Your task to perform on an android device: set default search engine in the chrome app Image 0: 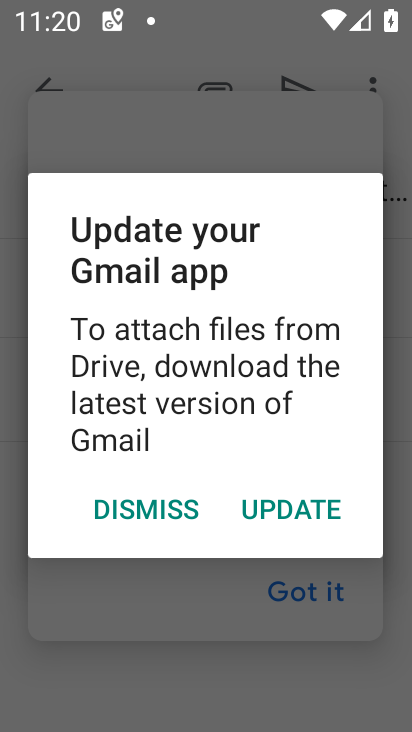
Step 0: press home button
Your task to perform on an android device: set default search engine in the chrome app Image 1: 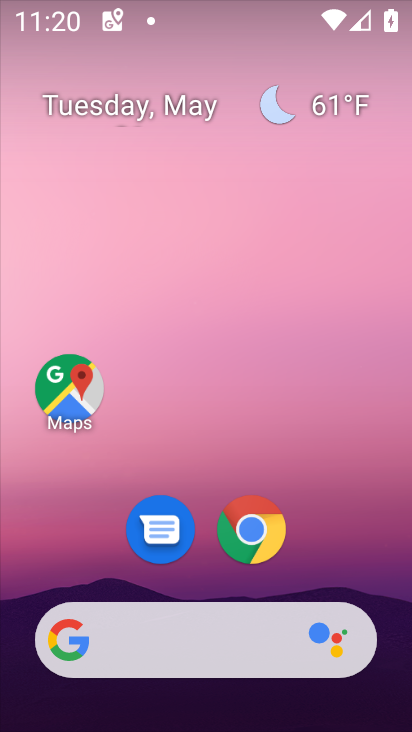
Step 1: click (265, 536)
Your task to perform on an android device: set default search engine in the chrome app Image 2: 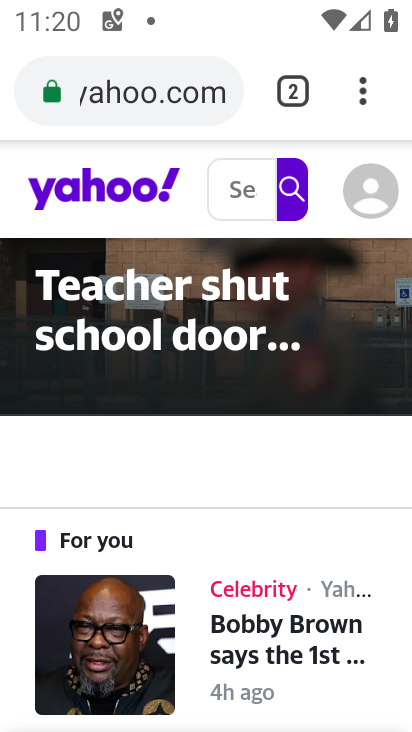
Step 2: click (365, 99)
Your task to perform on an android device: set default search engine in the chrome app Image 3: 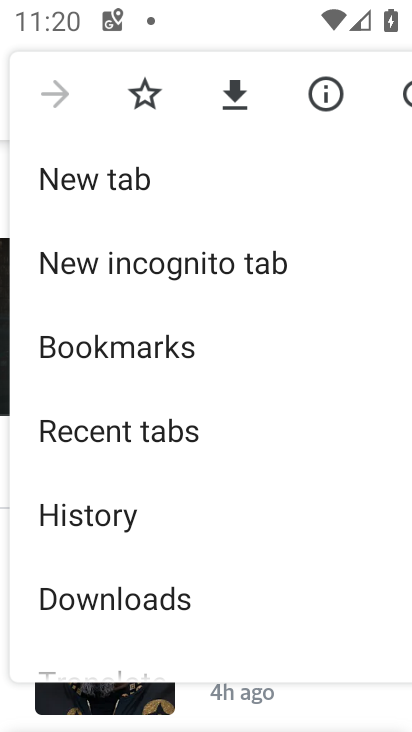
Step 3: drag from (121, 545) to (134, 205)
Your task to perform on an android device: set default search engine in the chrome app Image 4: 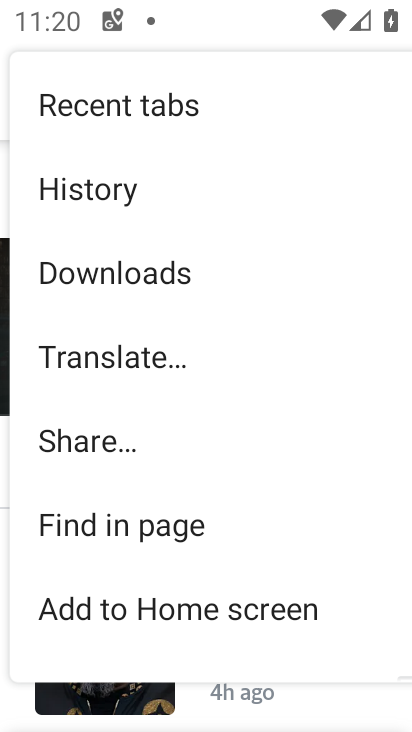
Step 4: drag from (171, 550) to (207, 224)
Your task to perform on an android device: set default search engine in the chrome app Image 5: 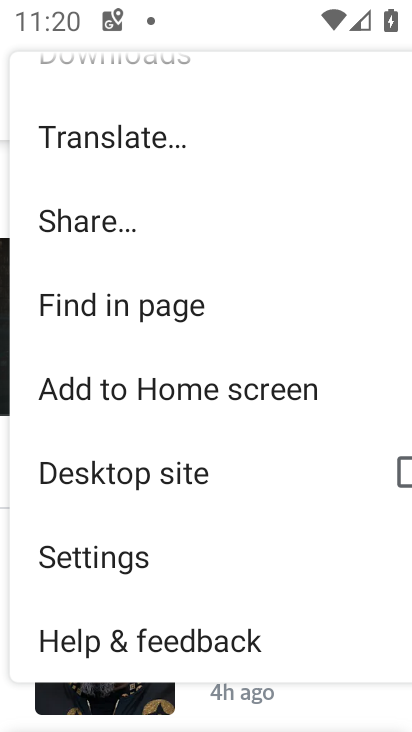
Step 5: click (89, 559)
Your task to perform on an android device: set default search engine in the chrome app Image 6: 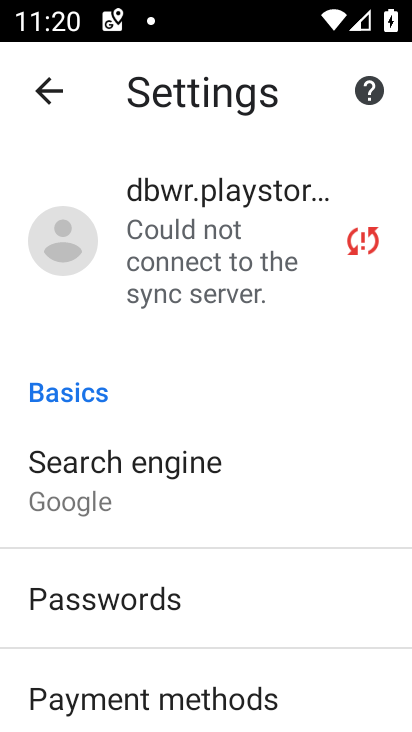
Step 6: click (116, 489)
Your task to perform on an android device: set default search engine in the chrome app Image 7: 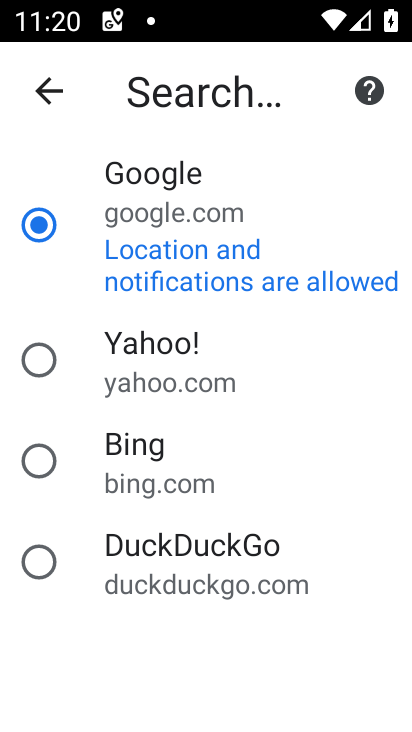
Step 7: click (122, 554)
Your task to perform on an android device: set default search engine in the chrome app Image 8: 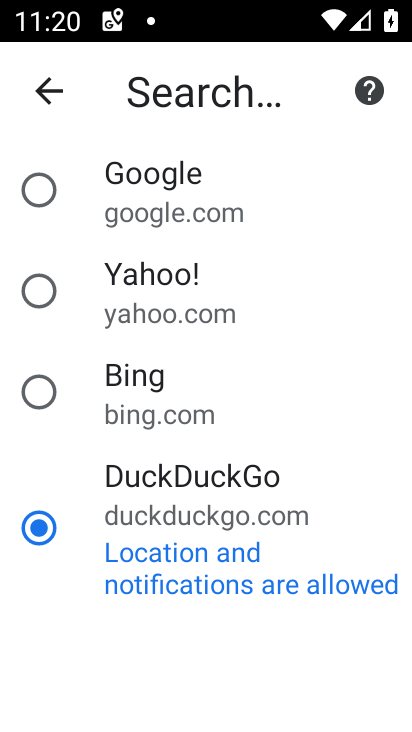
Step 8: task complete